Your task to perform on an android device: turn notification dots on Image 0: 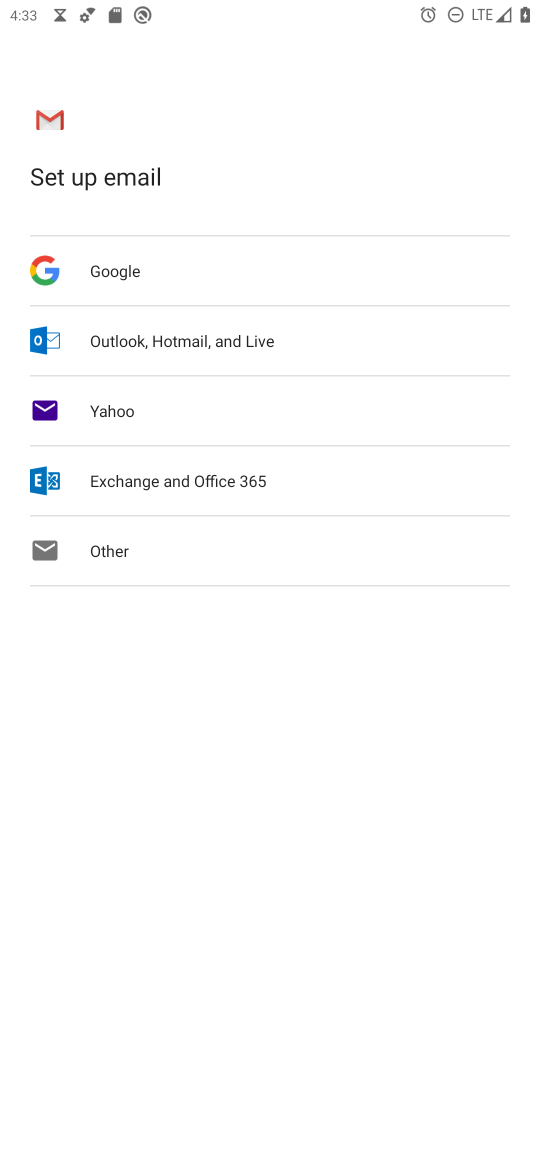
Step 0: press home button
Your task to perform on an android device: turn notification dots on Image 1: 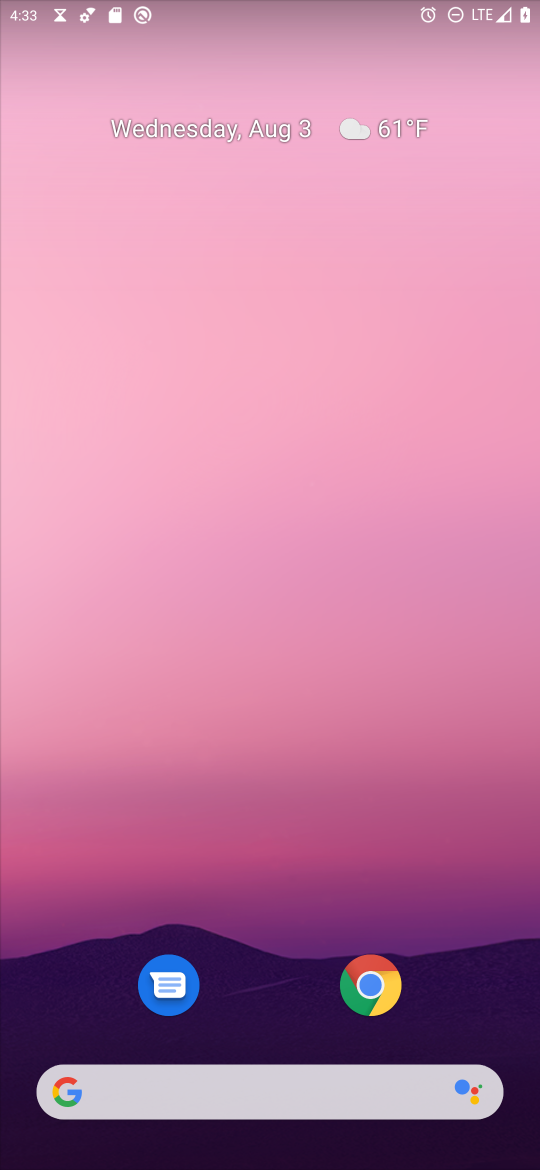
Step 1: drag from (262, 992) to (225, 168)
Your task to perform on an android device: turn notification dots on Image 2: 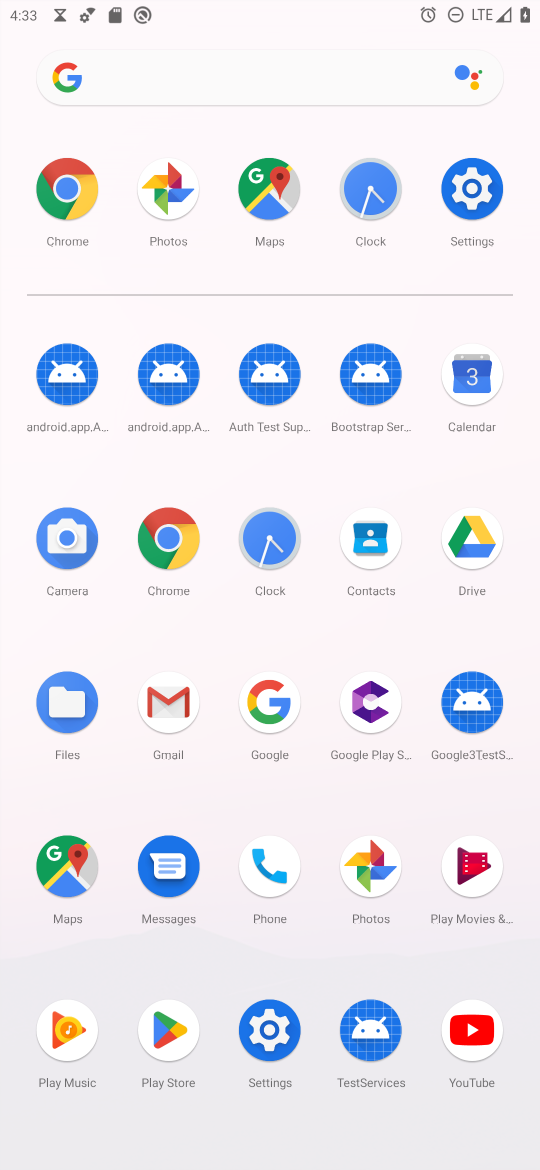
Step 2: click (261, 1025)
Your task to perform on an android device: turn notification dots on Image 3: 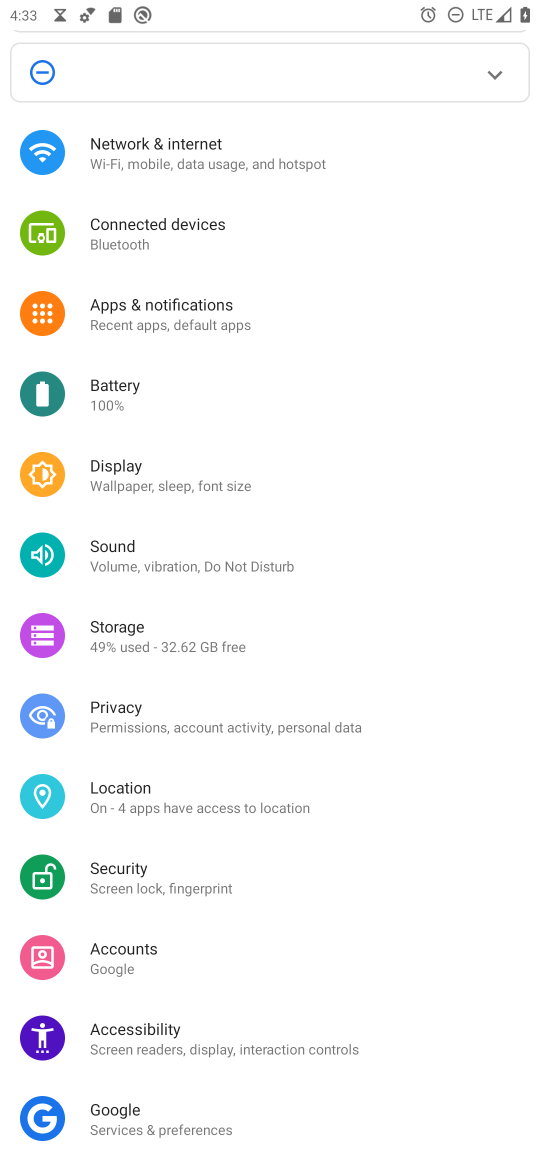
Step 3: click (212, 325)
Your task to perform on an android device: turn notification dots on Image 4: 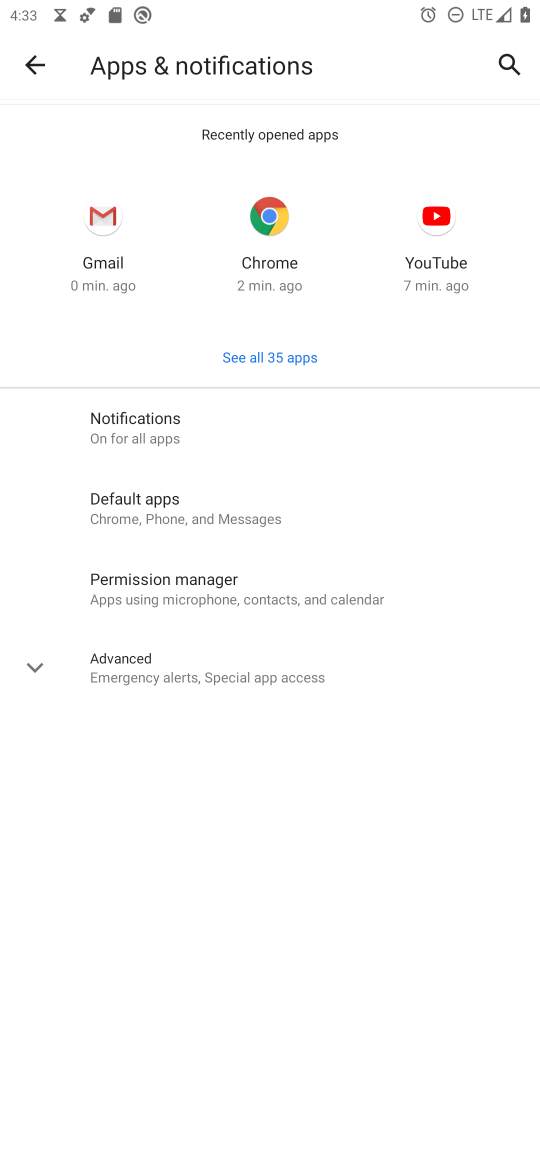
Step 4: click (162, 438)
Your task to perform on an android device: turn notification dots on Image 5: 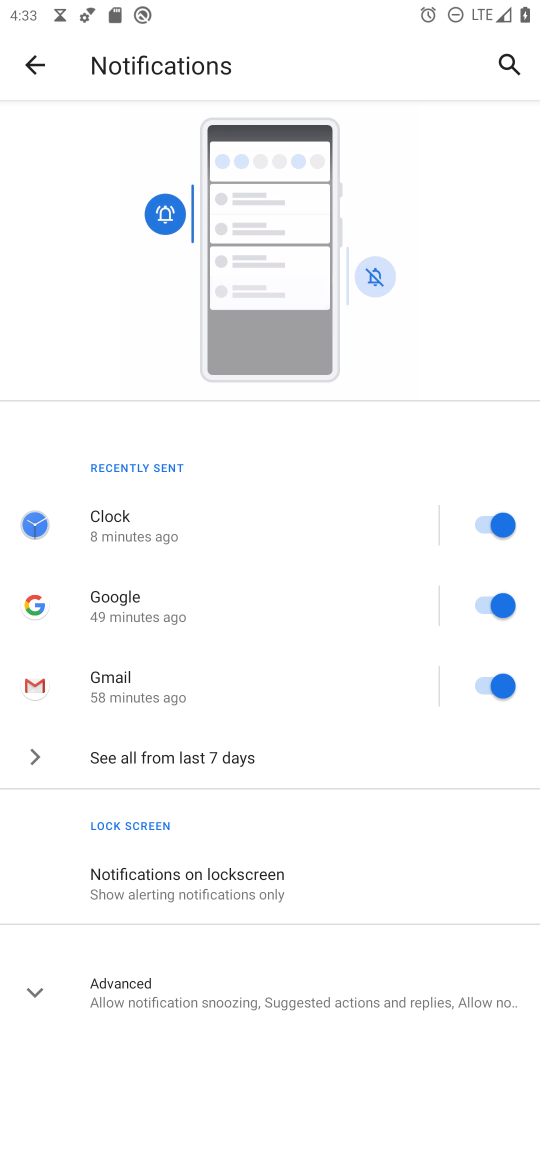
Step 5: click (149, 982)
Your task to perform on an android device: turn notification dots on Image 6: 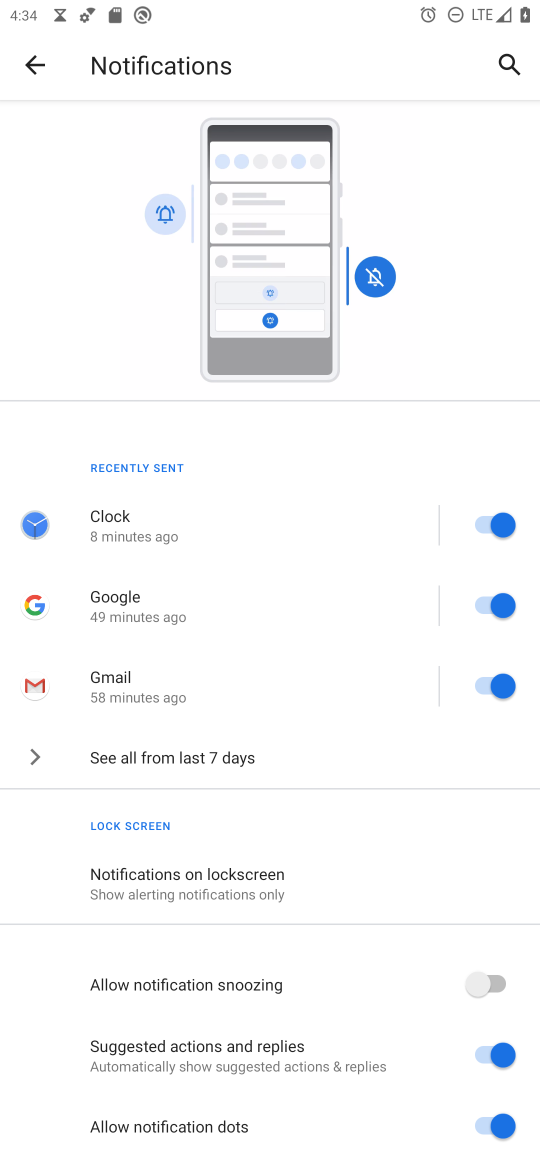
Step 6: task complete